Your task to perform on an android device: Open settings Image 0: 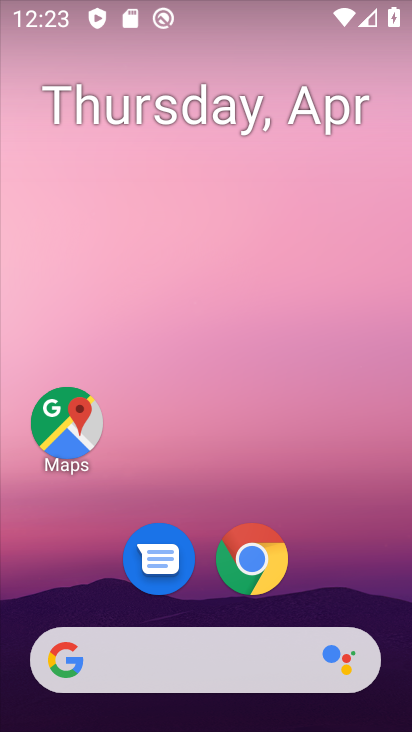
Step 0: drag from (154, 674) to (215, 150)
Your task to perform on an android device: Open settings Image 1: 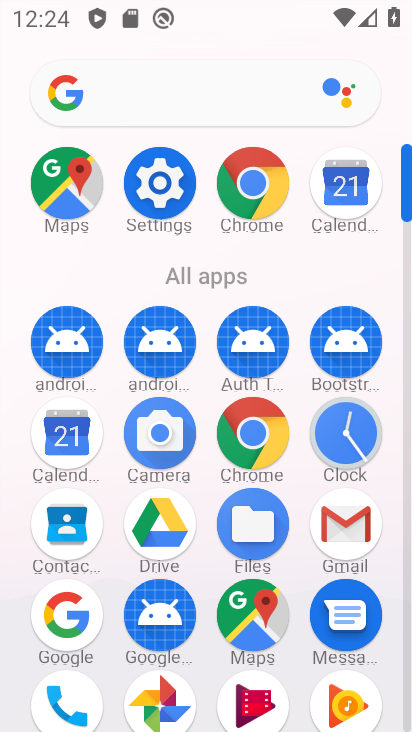
Step 1: click (165, 193)
Your task to perform on an android device: Open settings Image 2: 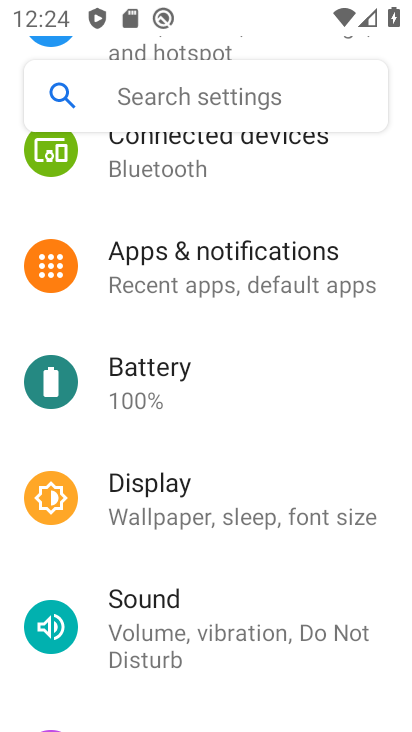
Step 2: task complete